Your task to perform on an android device: Go to privacy settings Image 0: 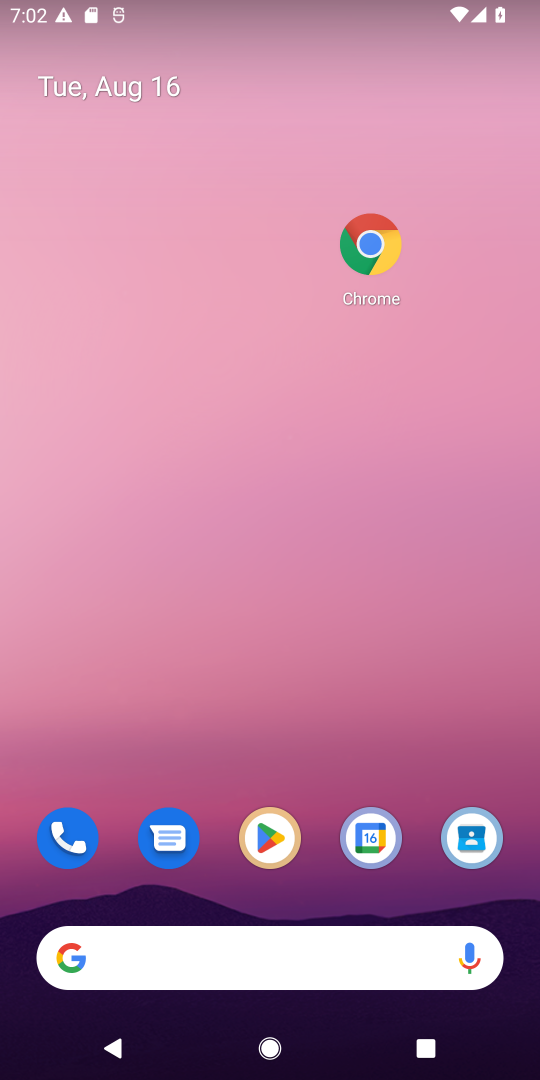
Step 0: drag from (312, 720) to (263, 0)
Your task to perform on an android device: Go to privacy settings Image 1: 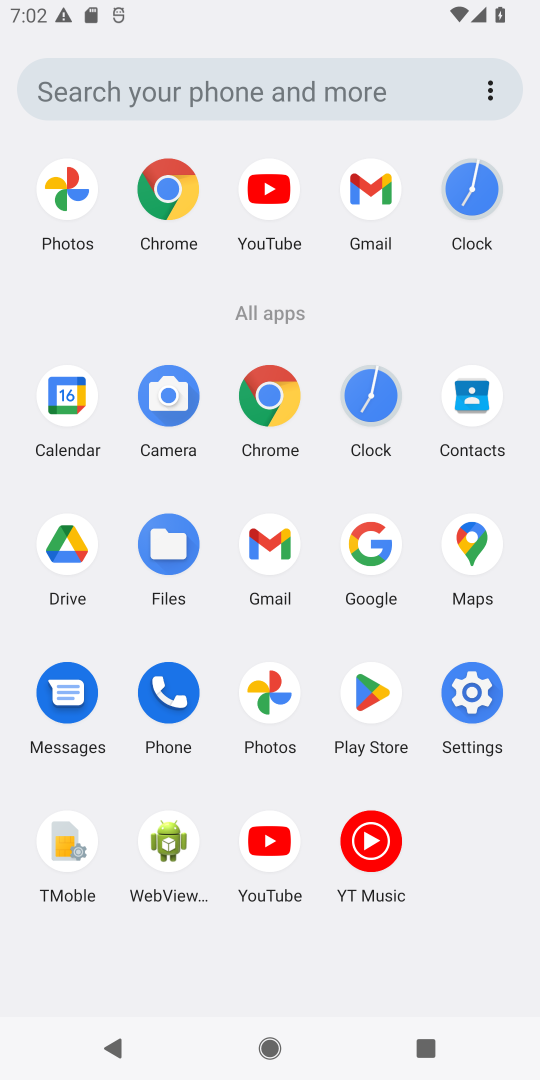
Step 1: click (469, 682)
Your task to perform on an android device: Go to privacy settings Image 2: 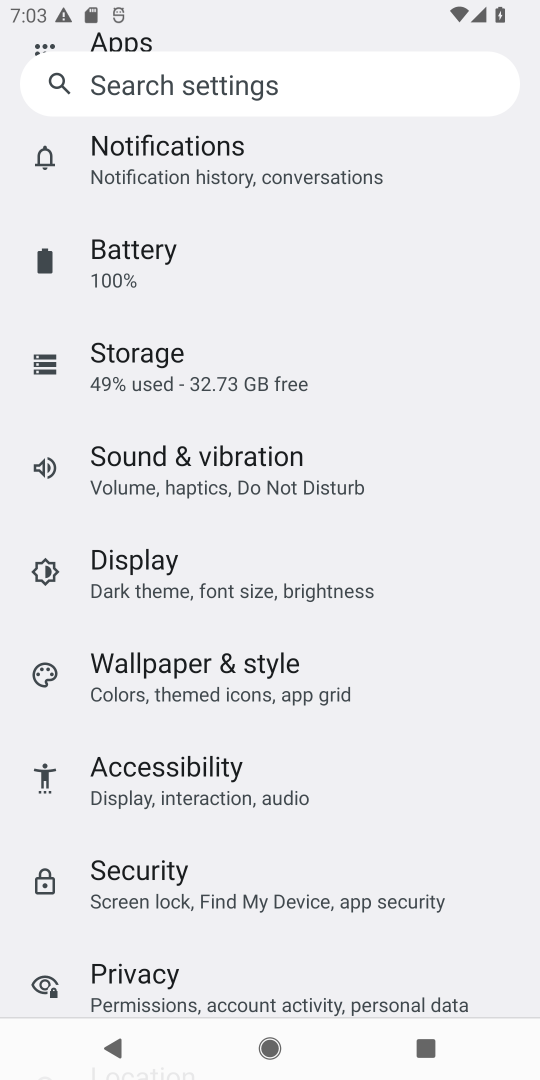
Step 2: click (222, 972)
Your task to perform on an android device: Go to privacy settings Image 3: 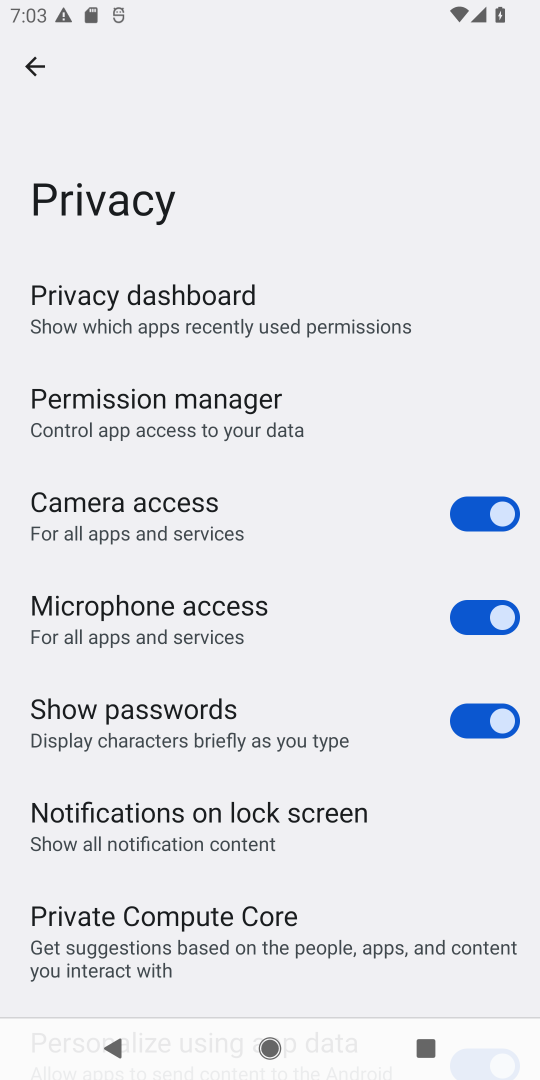
Step 3: task complete